Your task to perform on an android device: Open Reddit.com Image 0: 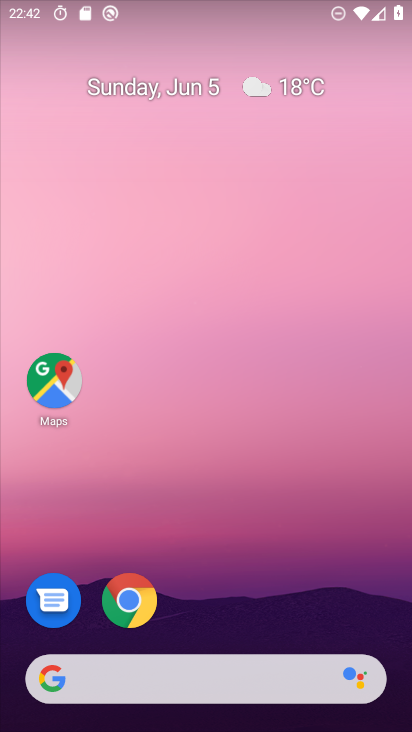
Step 0: click (132, 600)
Your task to perform on an android device: Open Reddit.com Image 1: 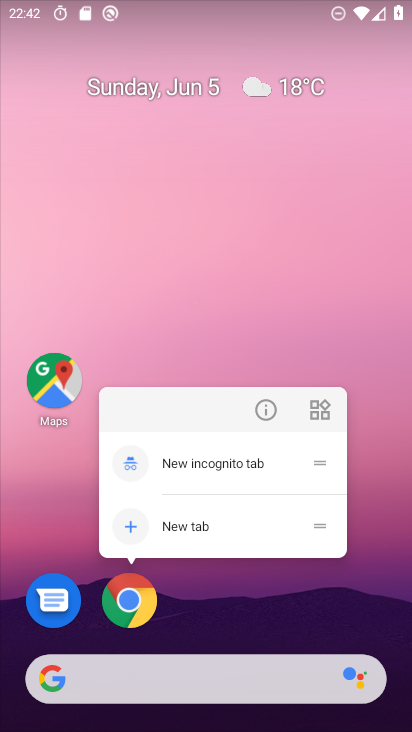
Step 1: click (269, 626)
Your task to perform on an android device: Open Reddit.com Image 2: 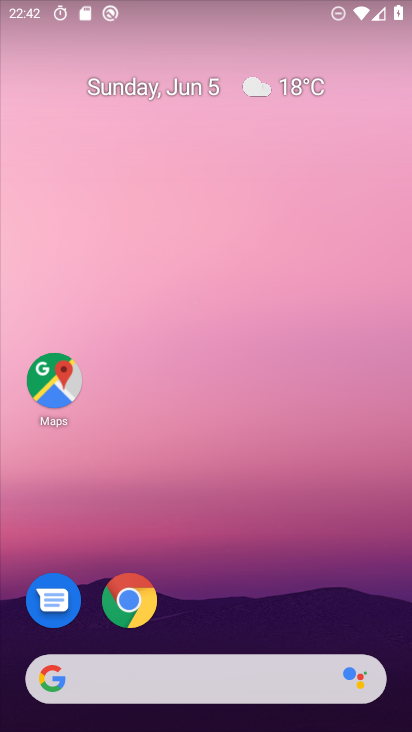
Step 2: drag from (263, 618) to (297, 245)
Your task to perform on an android device: Open Reddit.com Image 3: 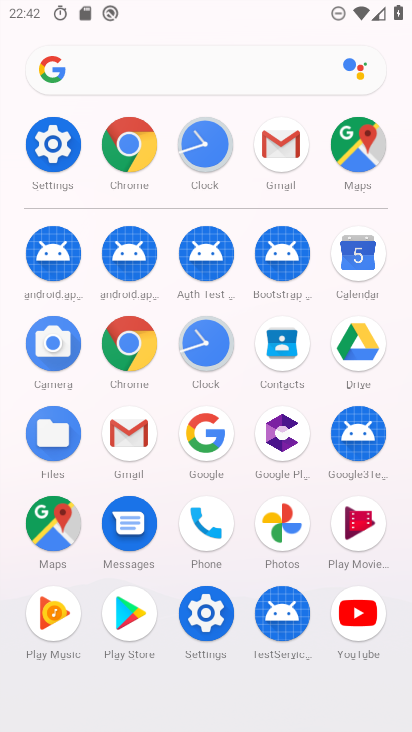
Step 3: click (132, 342)
Your task to perform on an android device: Open Reddit.com Image 4: 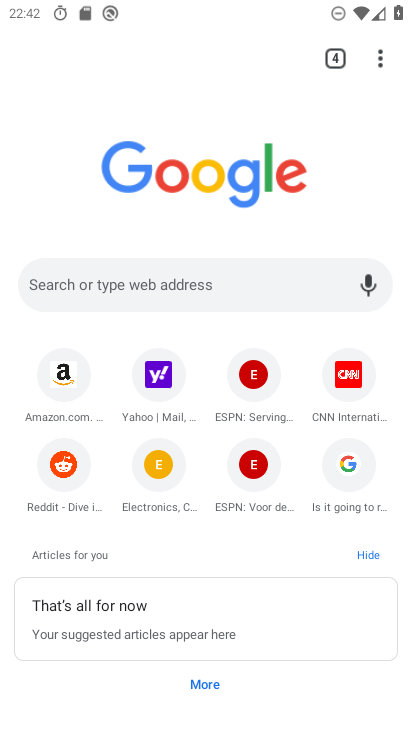
Step 4: click (237, 289)
Your task to perform on an android device: Open Reddit.com Image 5: 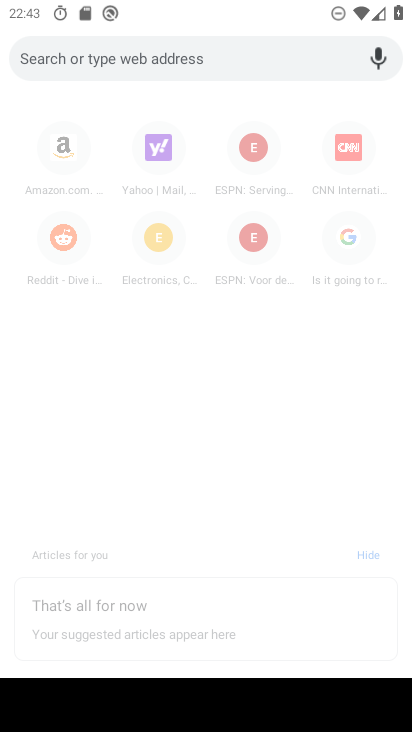
Step 5: type "reddit.com"
Your task to perform on an android device: Open Reddit.com Image 6: 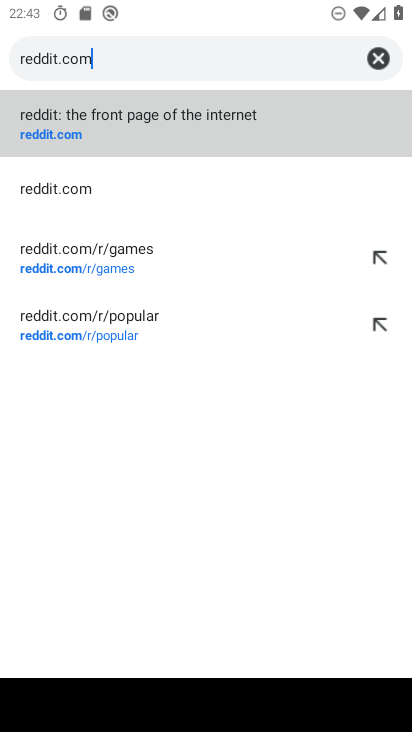
Step 6: click (44, 136)
Your task to perform on an android device: Open Reddit.com Image 7: 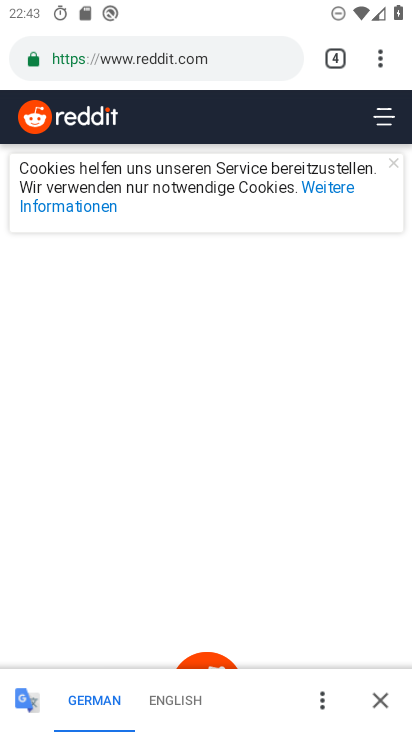
Step 7: task complete